Your task to perform on an android device: show emergency info Image 0: 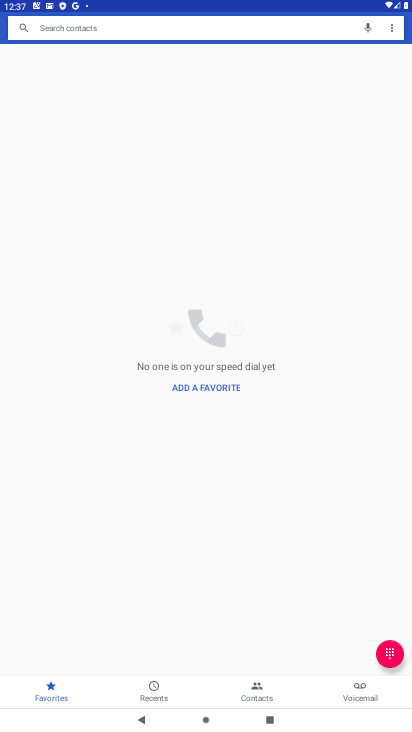
Step 0: press home button
Your task to perform on an android device: show emergency info Image 1: 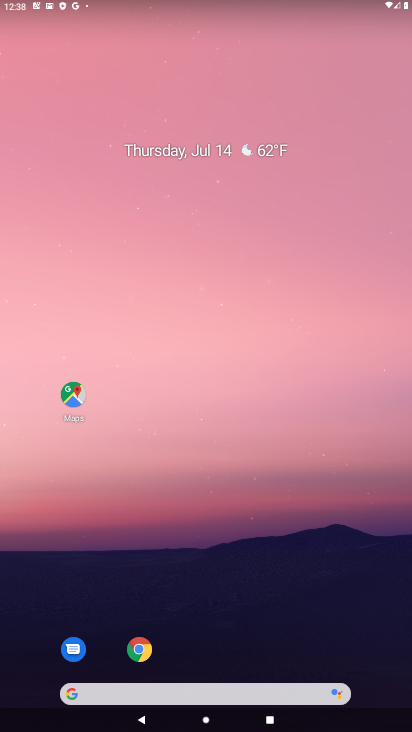
Step 1: drag from (362, 695) to (294, 4)
Your task to perform on an android device: show emergency info Image 2: 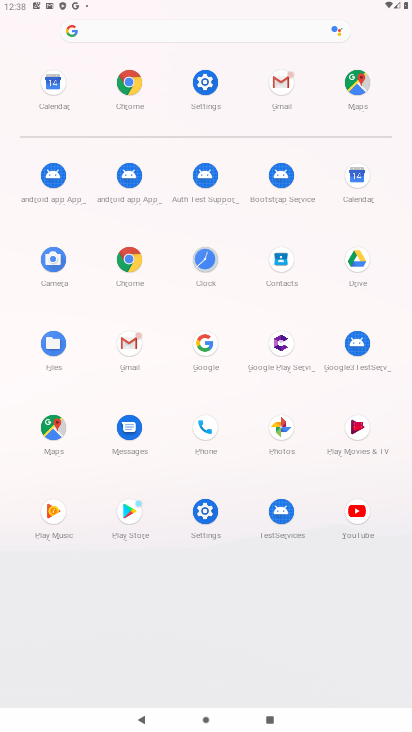
Step 2: click (211, 521)
Your task to perform on an android device: show emergency info Image 3: 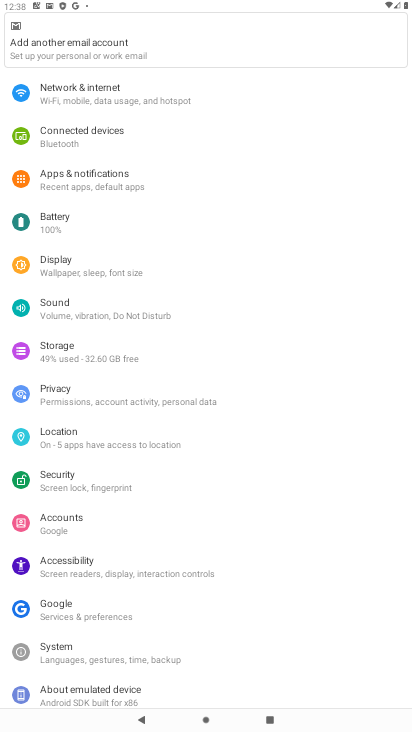
Step 3: click (102, 692)
Your task to perform on an android device: show emergency info Image 4: 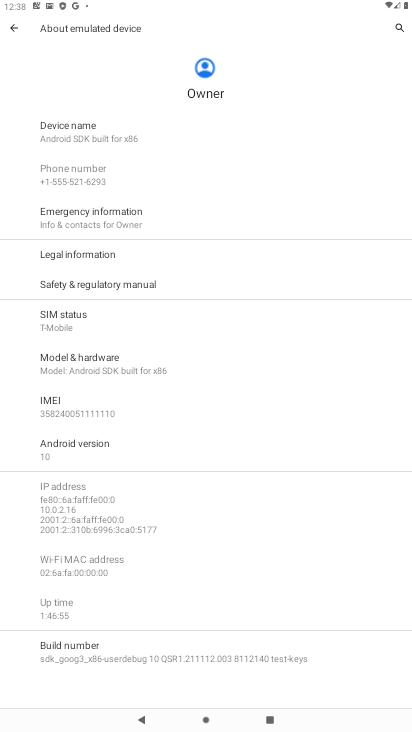
Step 4: click (78, 223)
Your task to perform on an android device: show emergency info Image 5: 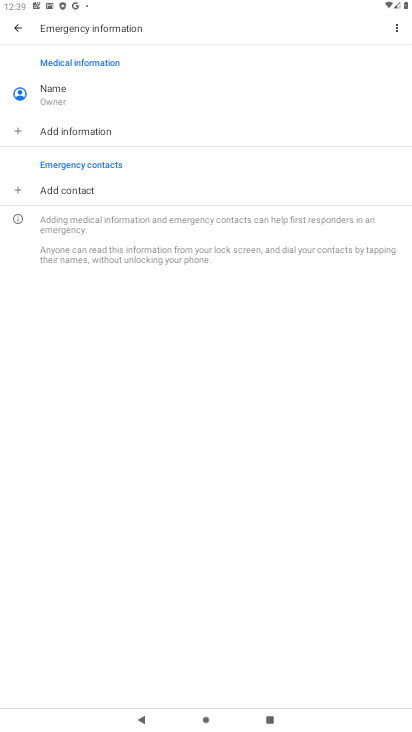
Step 5: task complete